Your task to perform on an android device: open a bookmark in the chrome app Image 0: 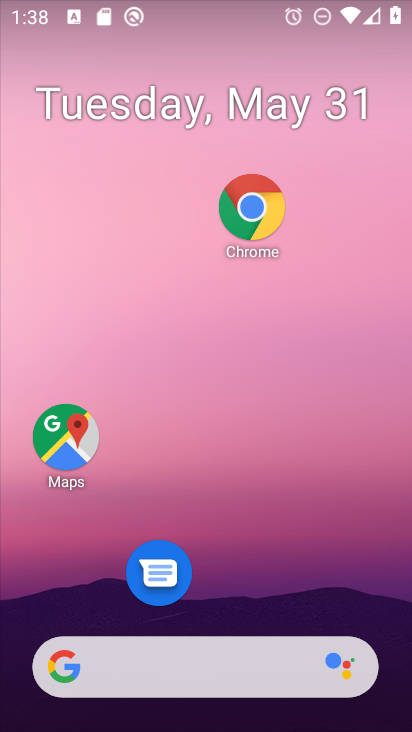
Step 0: click (275, 202)
Your task to perform on an android device: open a bookmark in the chrome app Image 1: 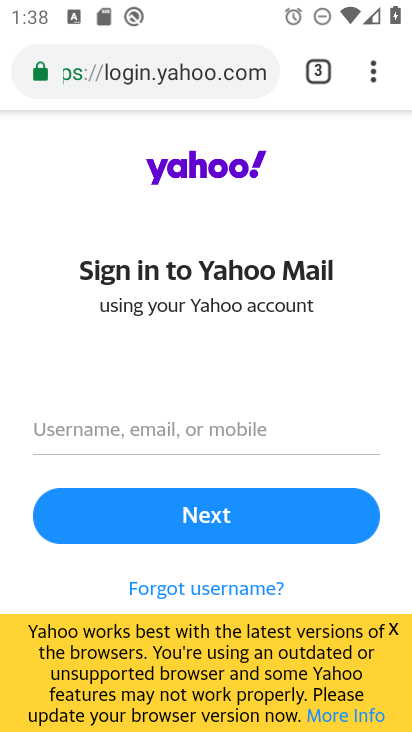
Step 1: click (376, 80)
Your task to perform on an android device: open a bookmark in the chrome app Image 2: 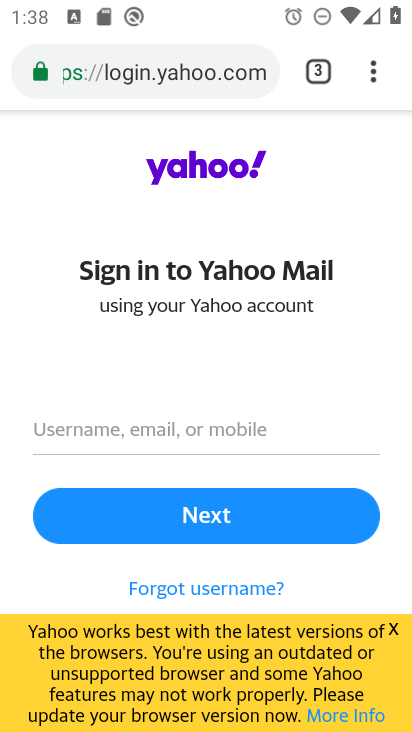
Step 2: click (371, 92)
Your task to perform on an android device: open a bookmark in the chrome app Image 3: 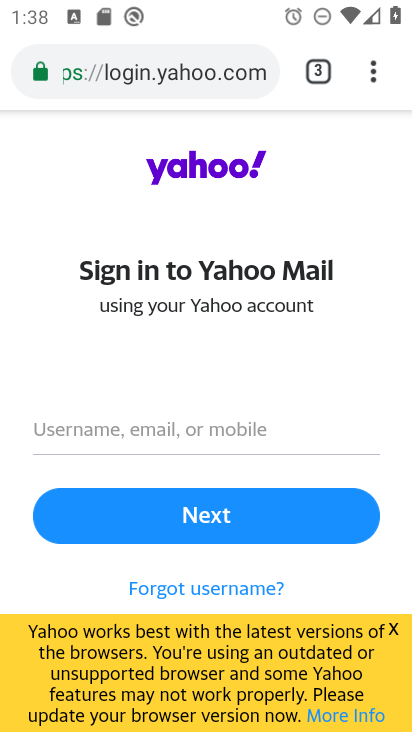
Step 3: click (373, 85)
Your task to perform on an android device: open a bookmark in the chrome app Image 4: 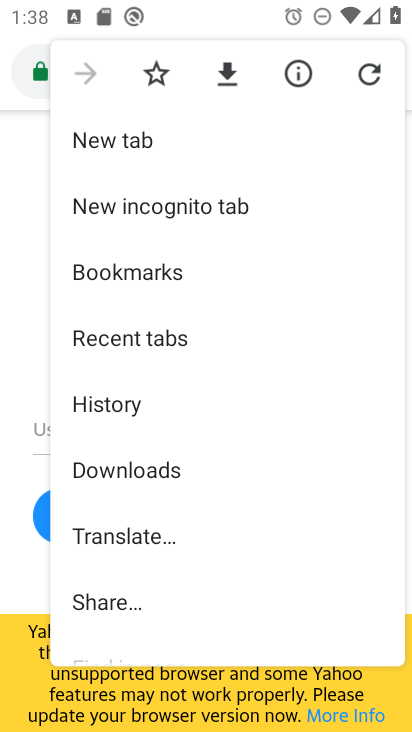
Step 4: click (188, 269)
Your task to perform on an android device: open a bookmark in the chrome app Image 5: 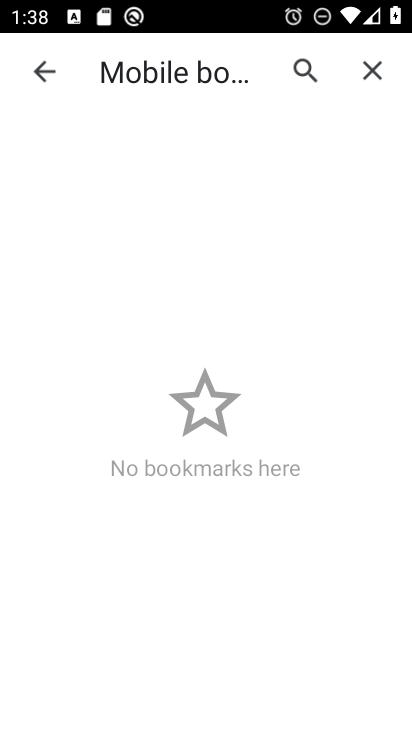
Step 5: task complete